Your task to perform on an android device: Go to wifi settings Image 0: 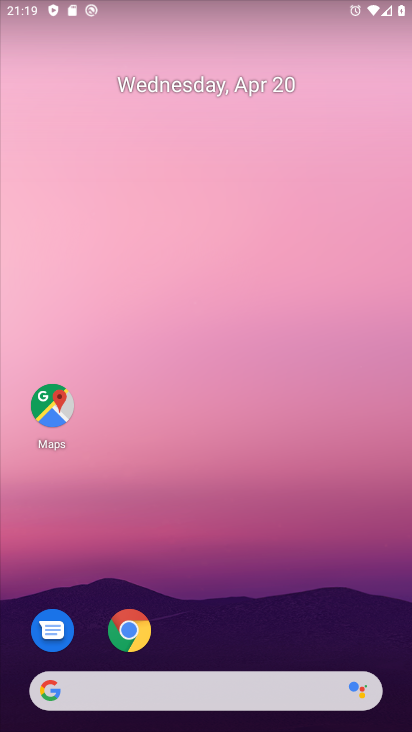
Step 0: drag from (246, 580) to (195, 186)
Your task to perform on an android device: Go to wifi settings Image 1: 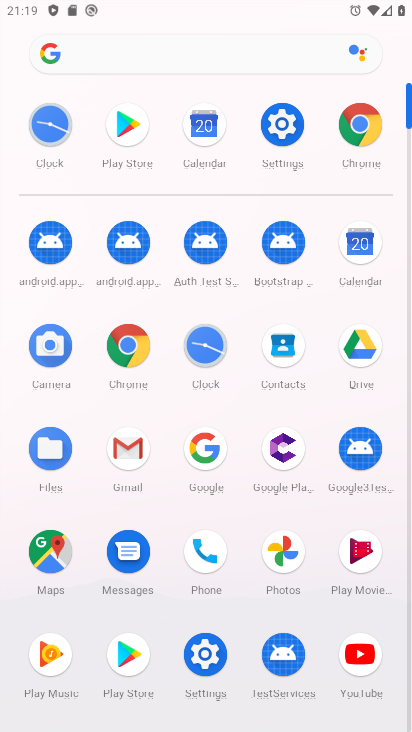
Step 1: click (282, 135)
Your task to perform on an android device: Go to wifi settings Image 2: 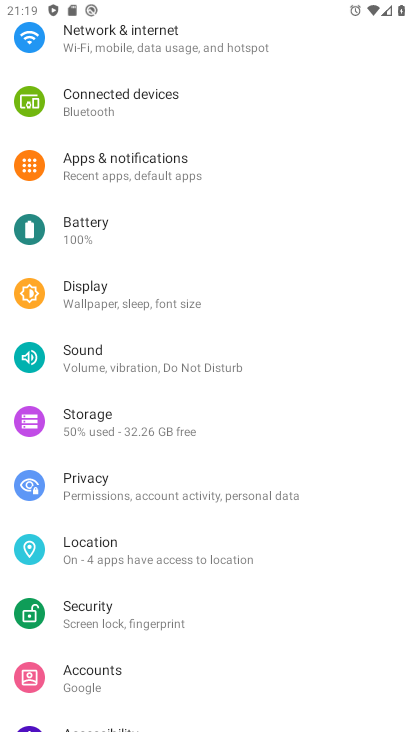
Step 2: click (124, 42)
Your task to perform on an android device: Go to wifi settings Image 3: 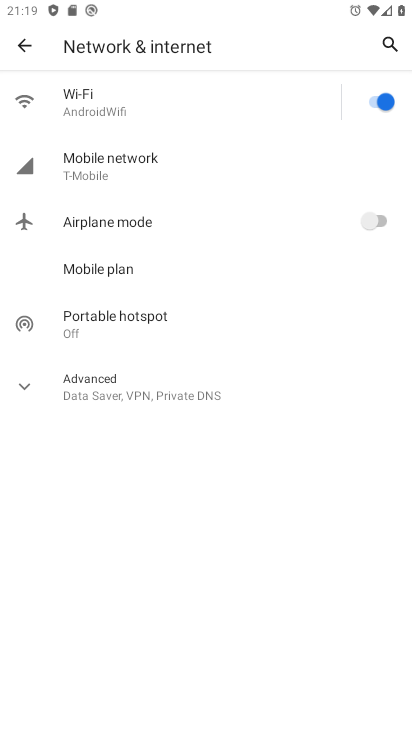
Step 3: click (114, 115)
Your task to perform on an android device: Go to wifi settings Image 4: 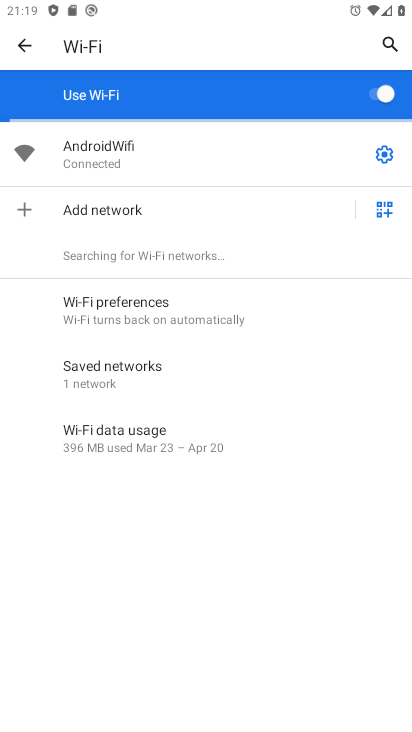
Step 4: task complete